Your task to perform on an android device: toggle location history Image 0: 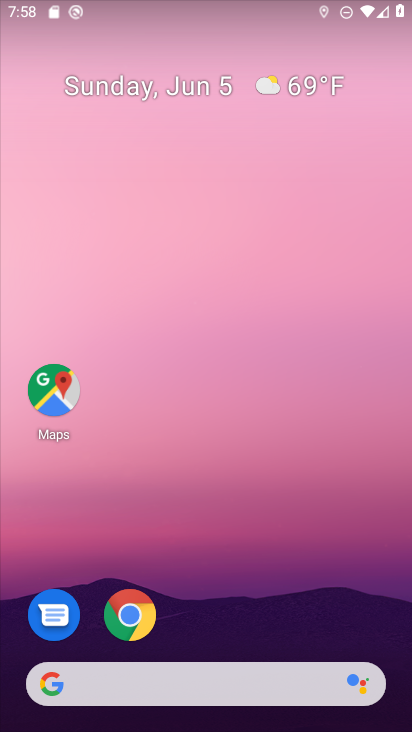
Step 0: drag from (201, 575) to (212, 63)
Your task to perform on an android device: toggle location history Image 1: 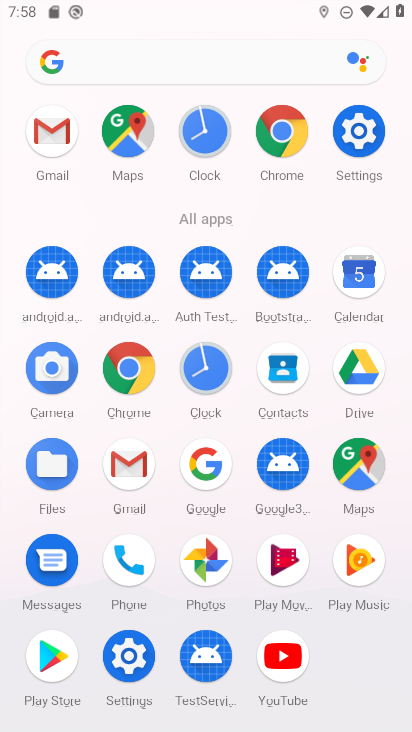
Step 1: click (359, 137)
Your task to perform on an android device: toggle location history Image 2: 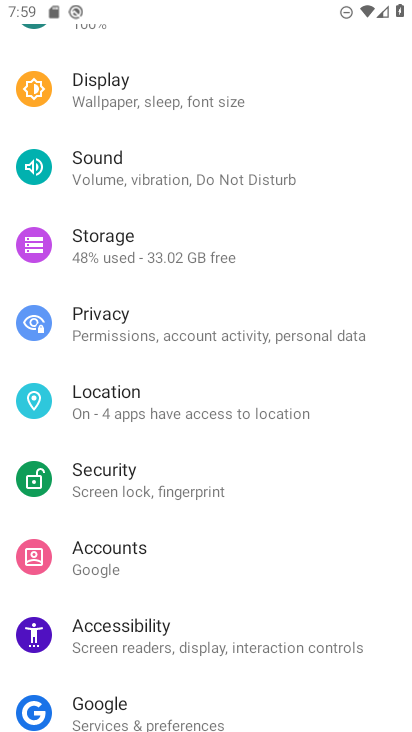
Step 2: click (125, 401)
Your task to perform on an android device: toggle location history Image 3: 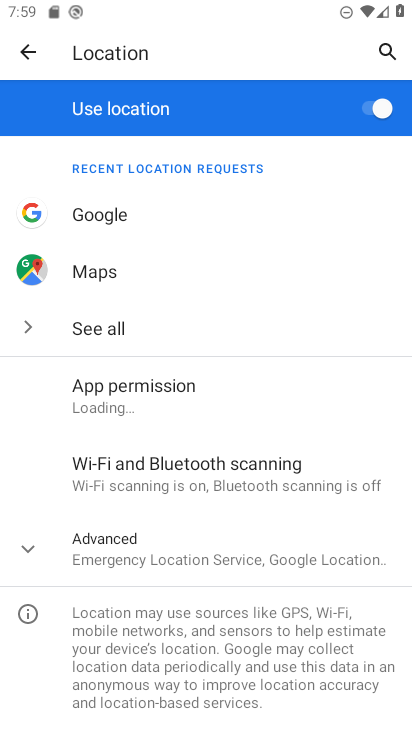
Step 3: click (150, 566)
Your task to perform on an android device: toggle location history Image 4: 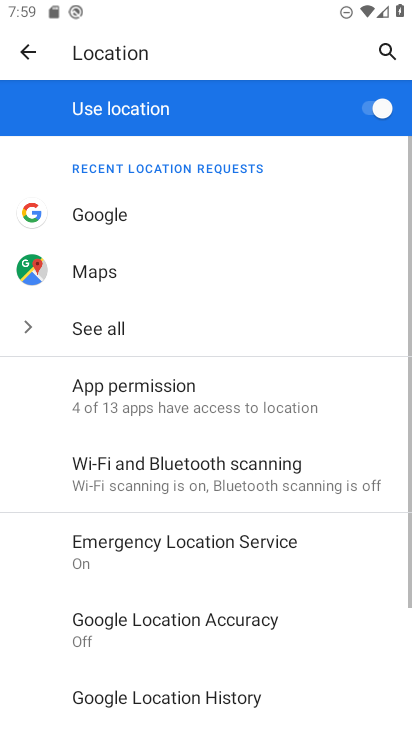
Step 4: drag from (201, 670) to (247, 543)
Your task to perform on an android device: toggle location history Image 5: 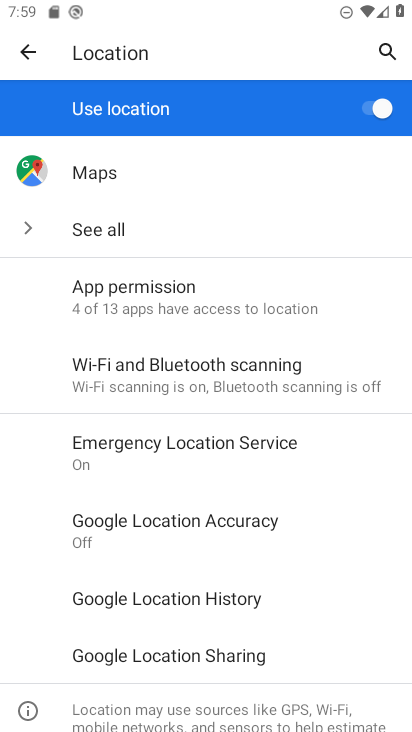
Step 5: click (97, 599)
Your task to perform on an android device: toggle location history Image 6: 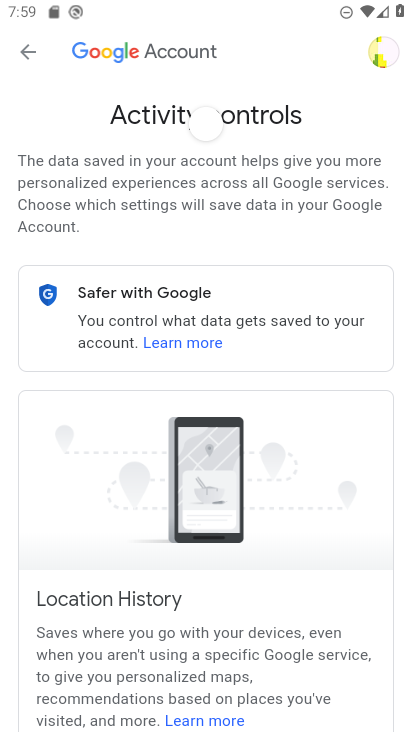
Step 6: drag from (158, 614) to (241, 118)
Your task to perform on an android device: toggle location history Image 7: 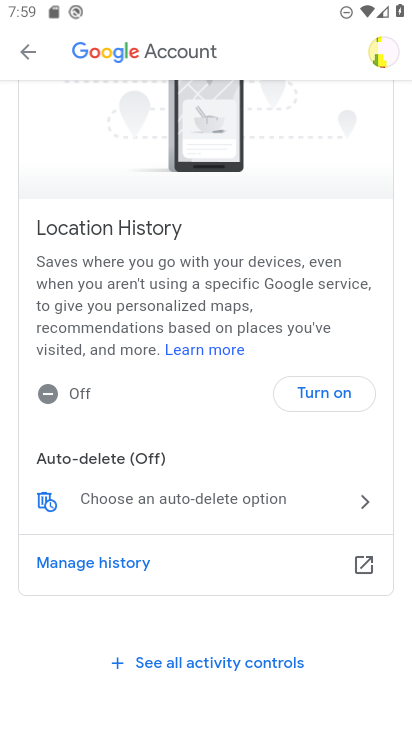
Step 7: click (300, 396)
Your task to perform on an android device: toggle location history Image 8: 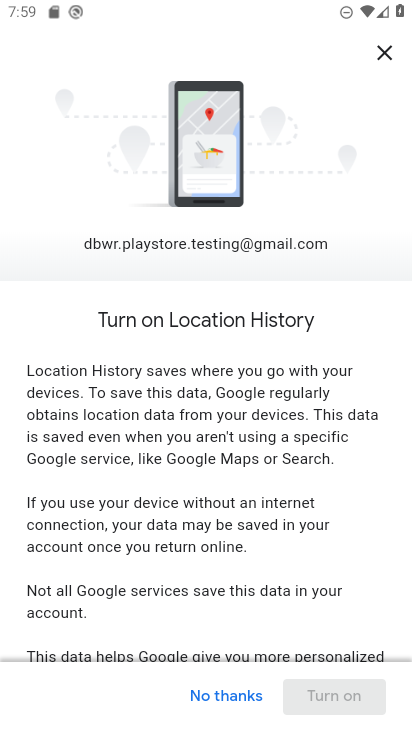
Step 8: drag from (208, 528) to (212, 163)
Your task to perform on an android device: toggle location history Image 9: 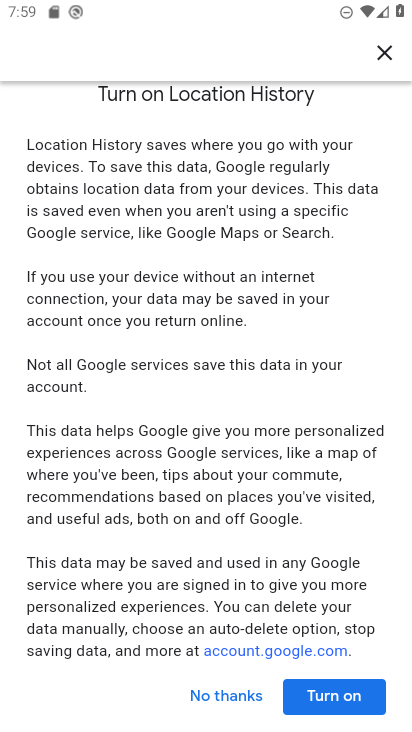
Step 9: click (344, 711)
Your task to perform on an android device: toggle location history Image 10: 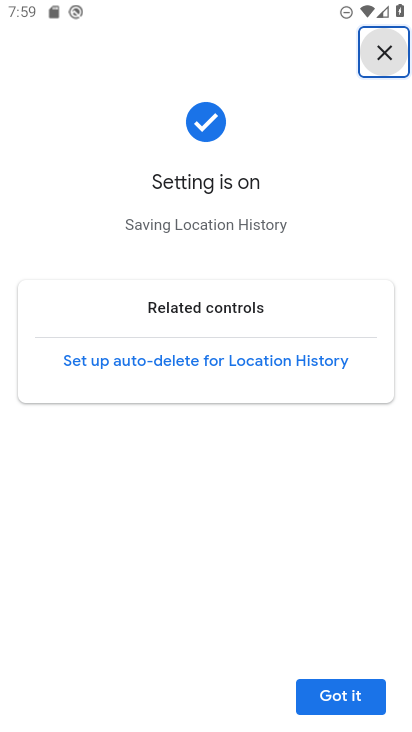
Step 10: click (320, 682)
Your task to perform on an android device: toggle location history Image 11: 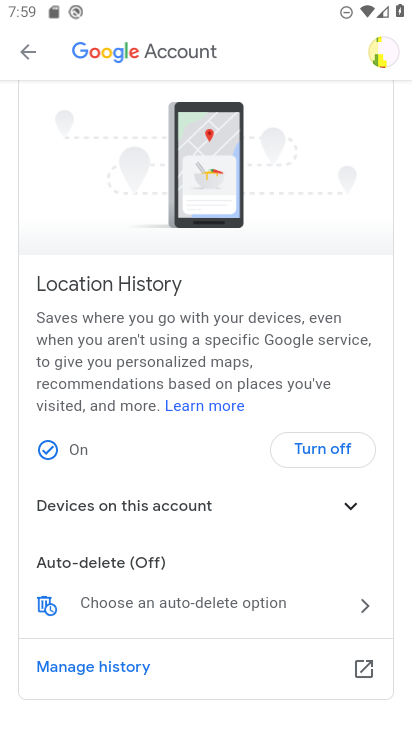
Step 11: task complete